Your task to perform on an android device: Open calendar and show me the fourth week of next month Image 0: 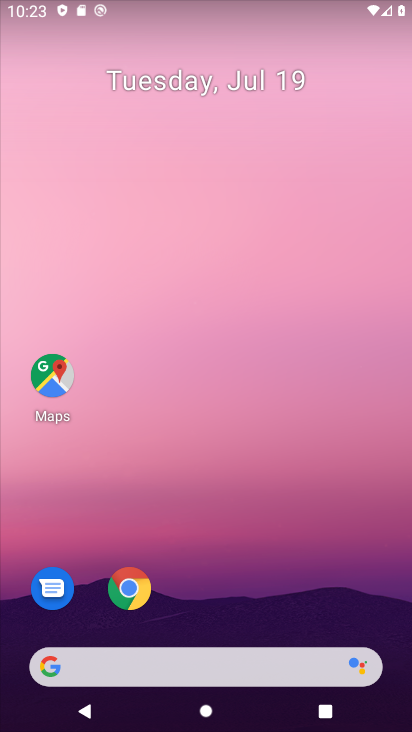
Step 0: drag from (387, 642) to (233, 65)
Your task to perform on an android device: Open calendar and show me the fourth week of next month Image 1: 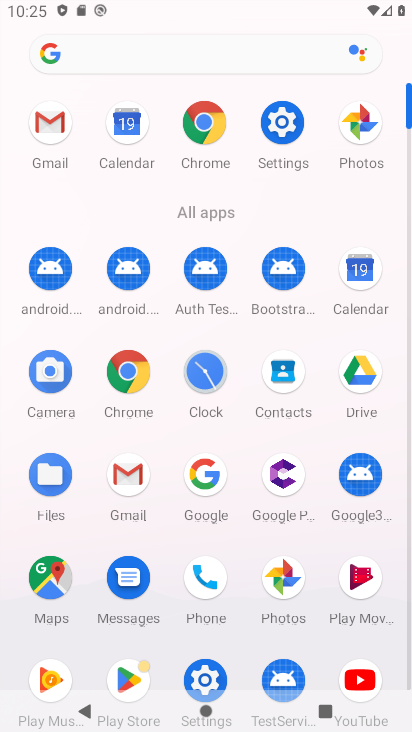
Step 1: click (359, 259)
Your task to perform on an android device: Open calendar and show me the fourth week of next month Image 2: 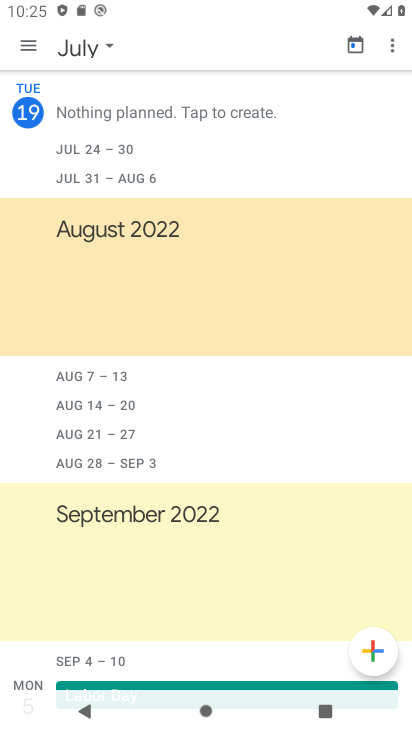
Step 2: click (89, 60)
Your task to perform on an android device: Open calendar and show me the fourth week of next month Image 3: 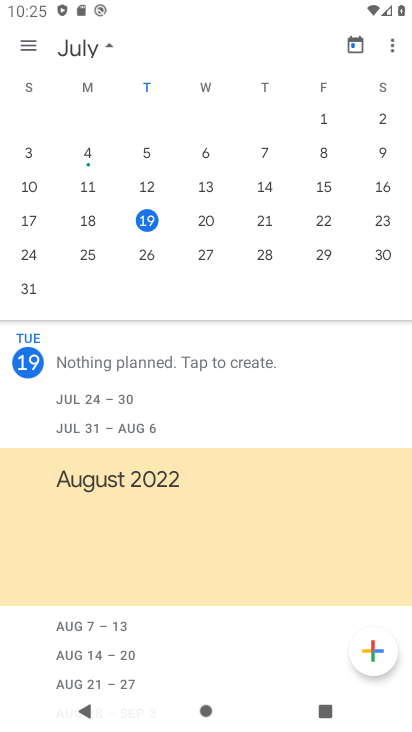
Step 3: drag from (346, 176) to (30, 209)
Your task to perform on an android device: Open calendar and show me the fourth week of next month Image 4: 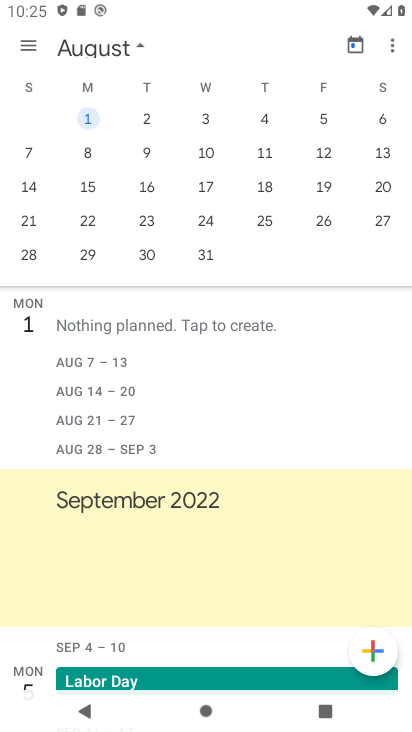
Step 4: click (27, 250)
Your task to perform on an android device: Open calendar and show me the fourth week of next month Image 5: 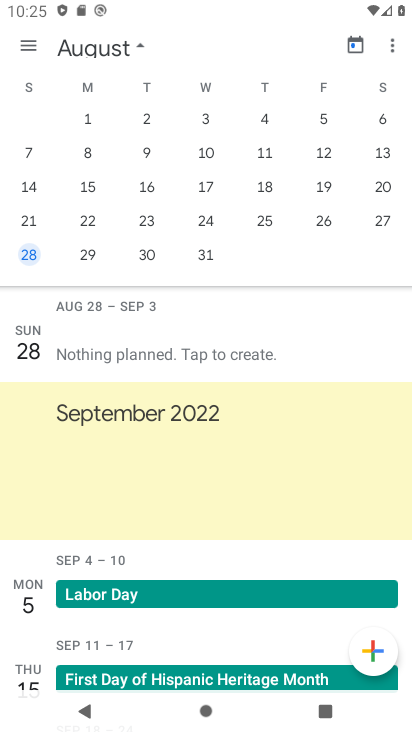
Step 5: task complete